Your task to perform on an android device: Open accessibility settings Image 0: 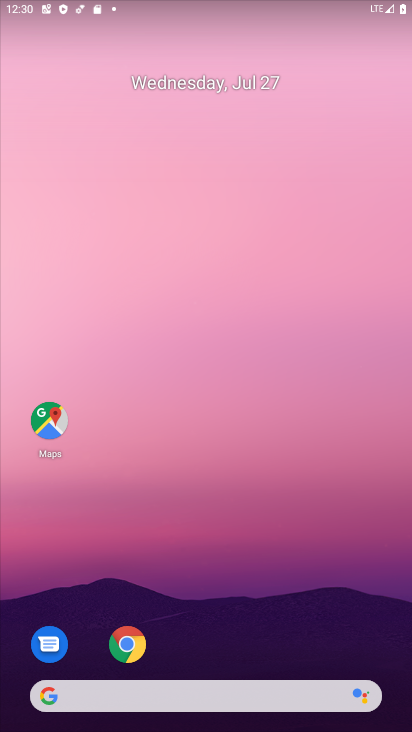
Step 0: drag from (211, 571) to (270, 15)
Your task to perform on an android device: Open accessibility settings Image 1: 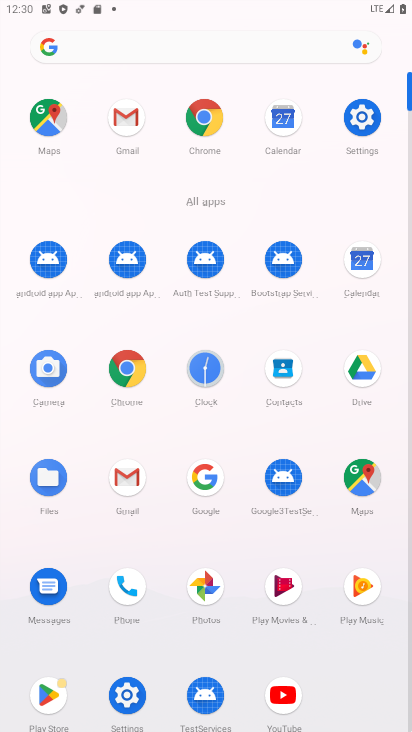
Step 1: click (132, 691)
Your task to perform on an android device: Open accessibility settings Image 2: 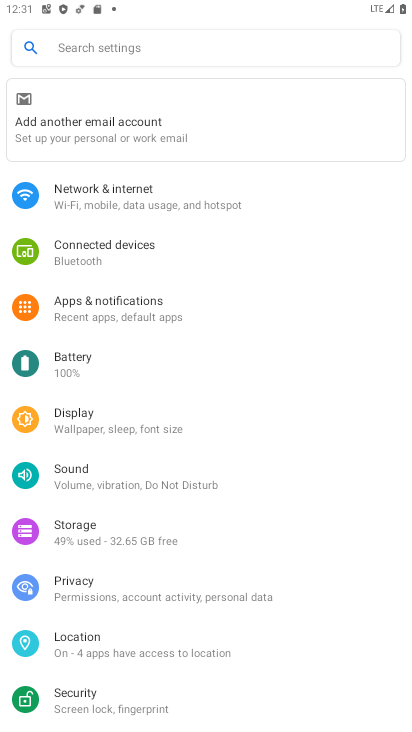
Step 2: drag from (134, 626) to (175, 424)
Your task to perform on an android device: Open accessibility settings Image 3: 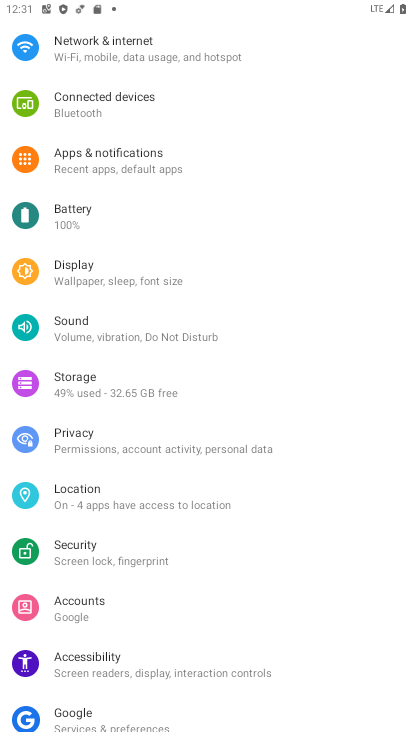
Step 3: click (103, 663)
Your task to perform on an android device: Open accessibility settings Image 4: 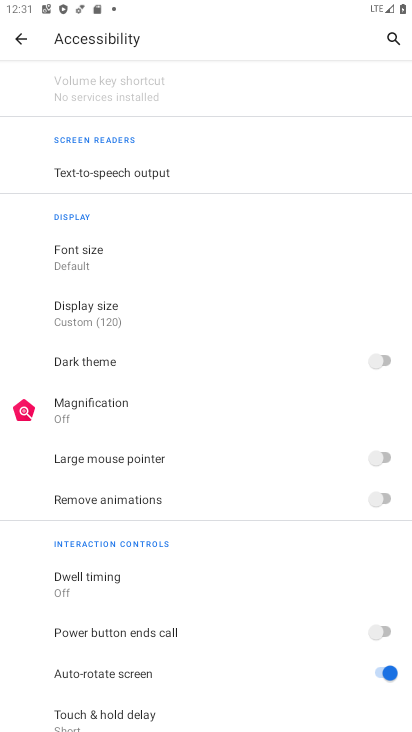
Step 4: task complete